Your task to perform on an android device: Open the stopwatch Image 0: 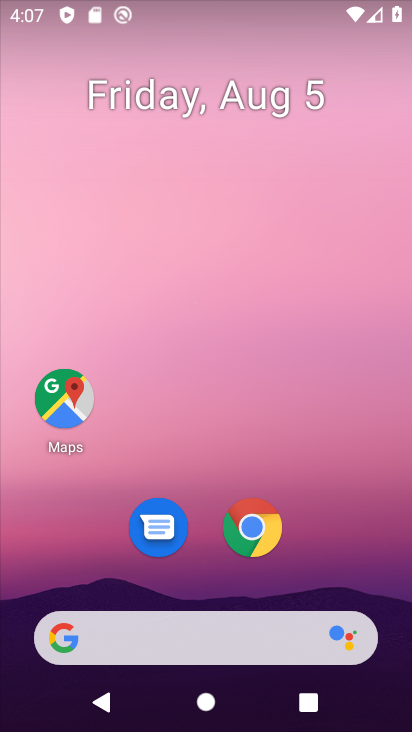
Step 0: drag from (218, 578) to (194, 102)
Your task to perform on an android device: Open the stopwatch Image 1: 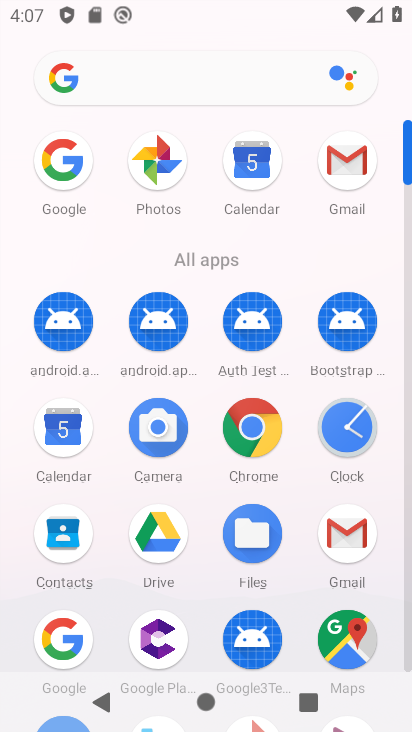
Step 1: click (350, 421)
Your task to perform on an android device: Open the stopwatch Image 2: 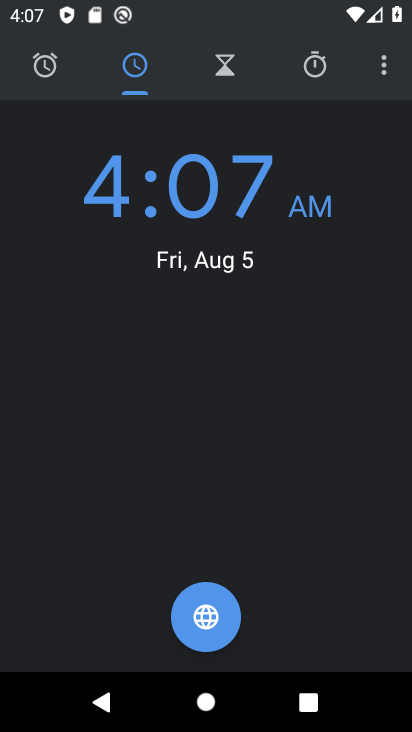
Step 2: click (317, 64)
Your task to perform on an android device: Open the stopwatch Image 3: 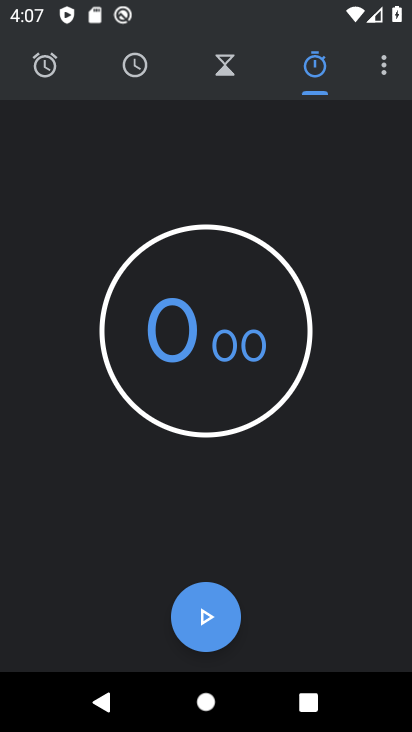
Step 3: click (209, 611)
Your task to perform on an android device: Open the stopwatch Image 4: 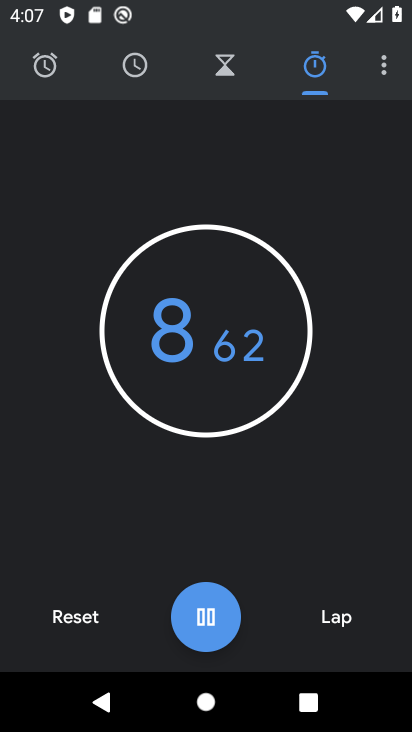
Step 4: task complete